Your task to perform on an android device: turn on improve location accuracy Image 0: 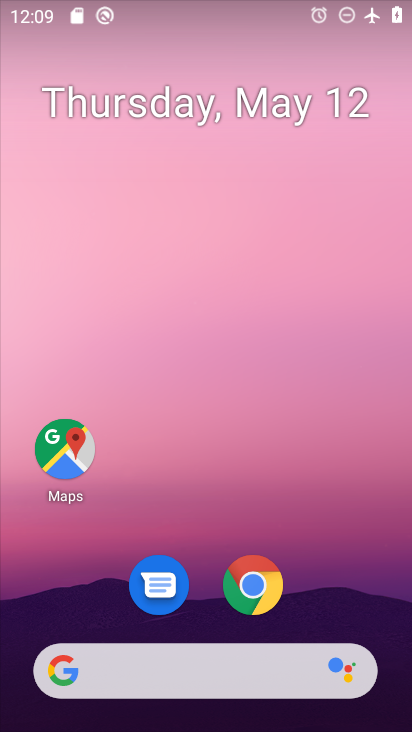
Step 0: drag from (274, 464) to (298, 32)
Your task to perform on an android device: turn on improve location accuracy Image 1: 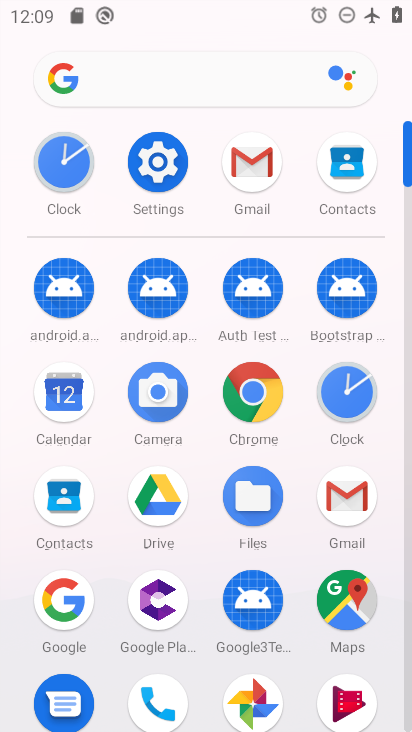
Step 1: click (183, 143)
Your task to perform on an android device: turn on improve location accuracy Image 2: 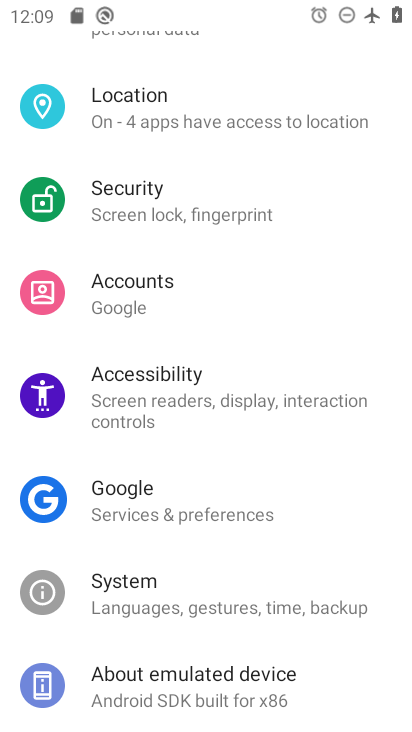
Step 2: click (221, 115)
Your task to perform on an android device: turn on improve location accuracy Image 3: 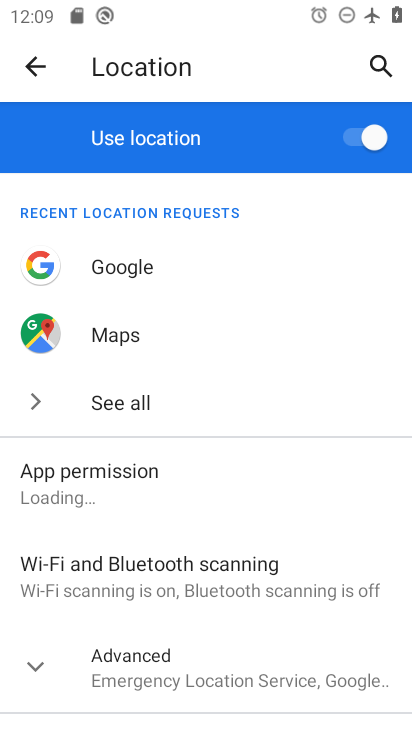
Step 3: click (31, 657)
Your task to perform on an android device: turn on improve location accuracy Image 4: 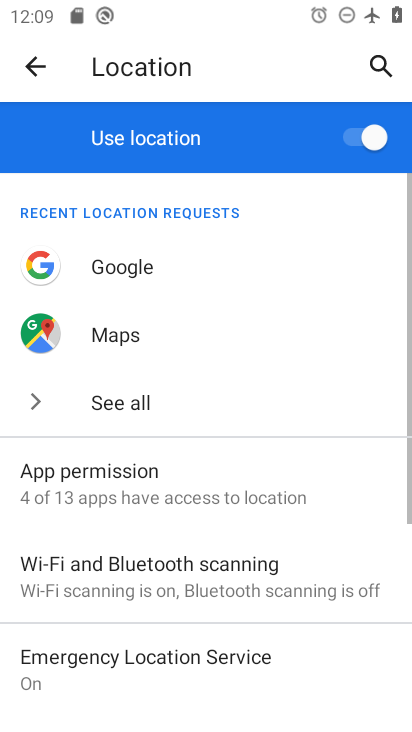
Step 4: drag from (284, 525) to (286, 221)
Your task to perform on an android device: turn on improve location accuracy Image 5: 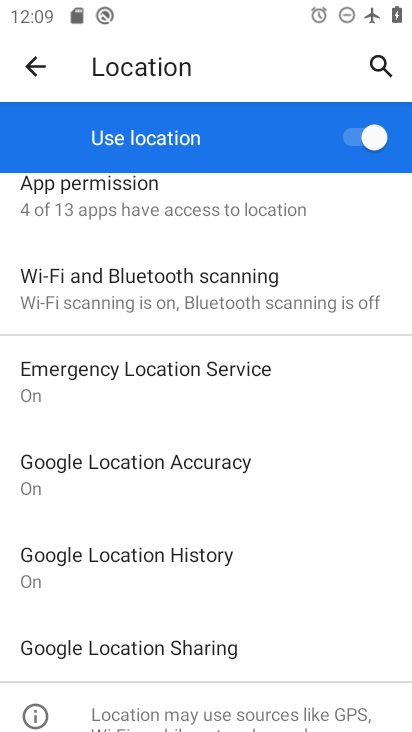
Step 5: click (224, 460)
Your task to perform on an android device: turn on improve location accuracy Image 6: 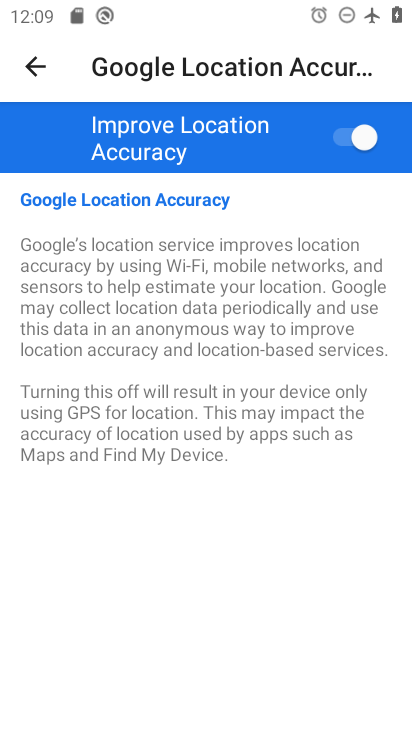
Step 6: task complete